Your task to perform on an android device: move an email to a new category in the gmail app Image 0: 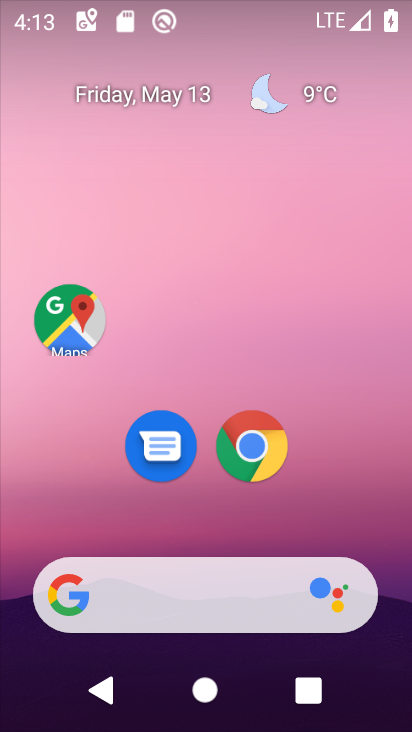
Step 0: drag from (278, 452) to (278, 56)
Your task to perform on an android device: move an email to a new category in the gmail app Image 1: 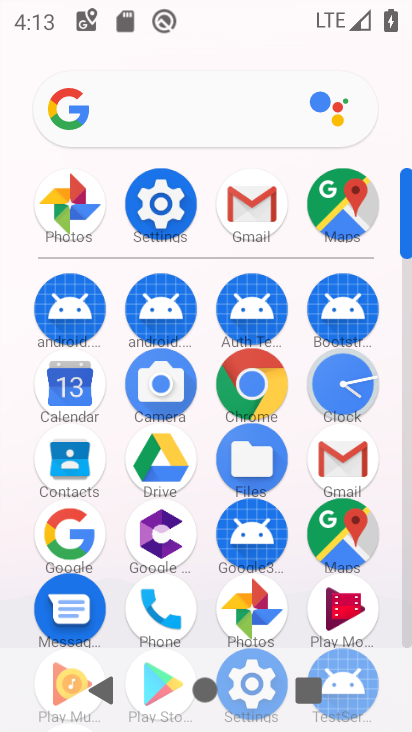
Step 1: click (258, 224)
Your task to perform on an android device: move an email to a new category in the gmail app Image 2: 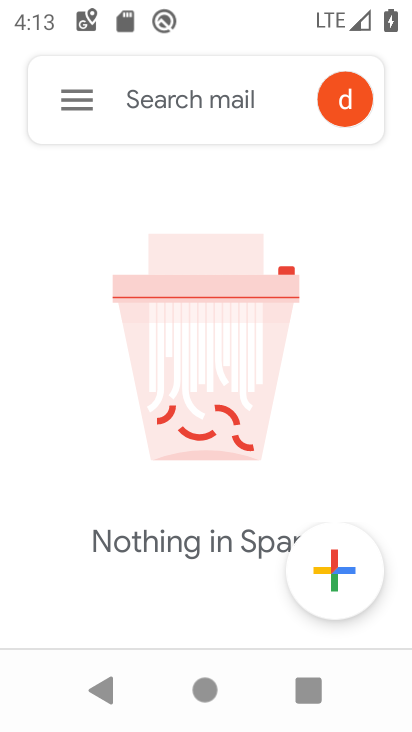
Step 2: click (57, 80)
Your task to perform on an android device: move an email to a new category in the gmail app Image 3: 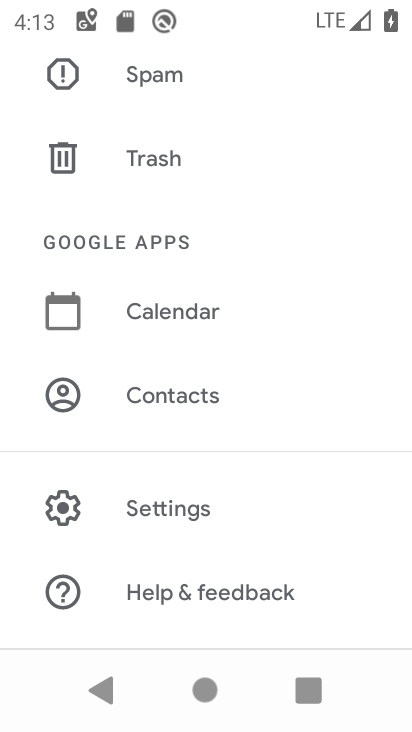
Step 3: drag from (212, 134) to (226, 430)
Your task to perform on an android device: move an email to a new category in the gmail app Image 4: 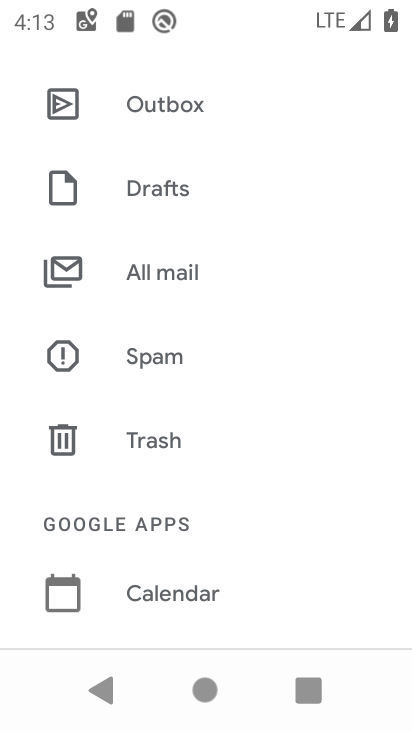
Step 4: click (161, 251)
Your task to perform on an android device: move an email to a new category in the gmail app Image 5: 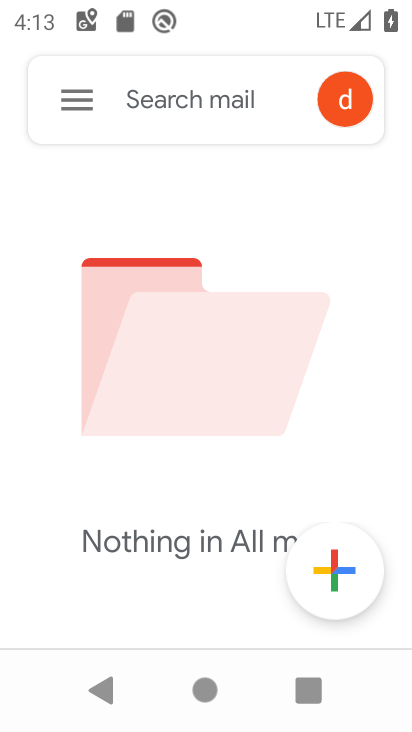
Step 5: task complete